Your task to perform on an android device: change the clock display to analog Image 0: 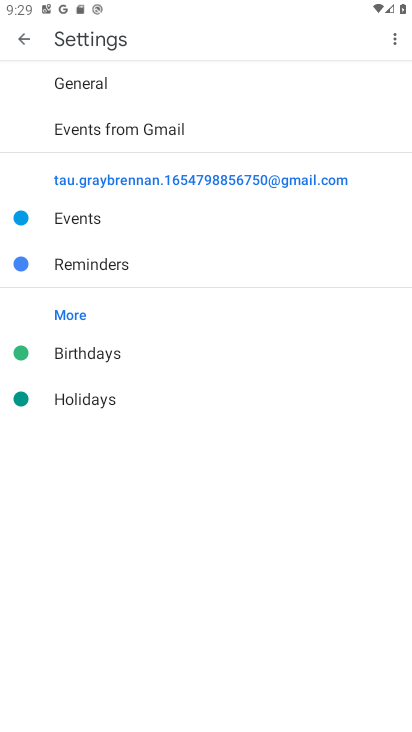
Step 0: drag from (293, 652) to (288, 161)
Your task to perform on an android device: change the clock display to analog Image 1: 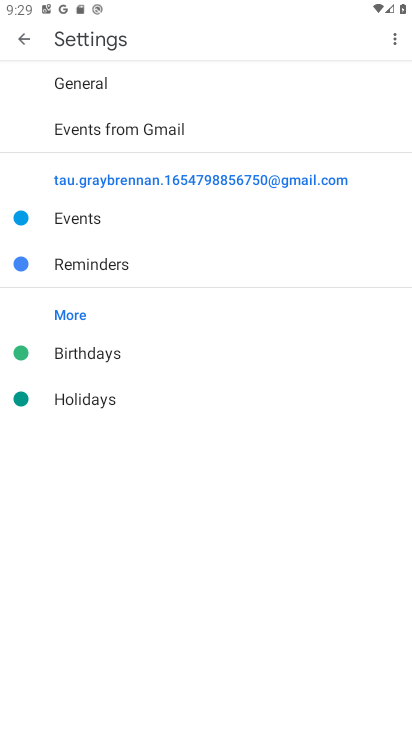
Step 1: click (30, 34)
Your task to perform on an android device: change the clock display to analog Image 2: 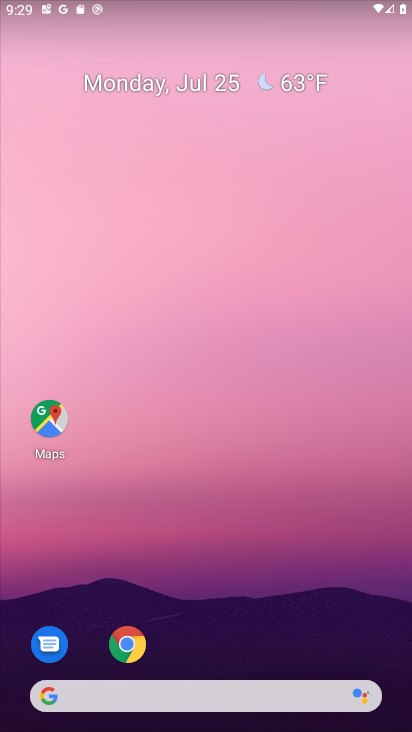
Step 2: drag from (248, 631) to (223, 149)
Your task to perform on an android device: change the clock display to analog Image 3: 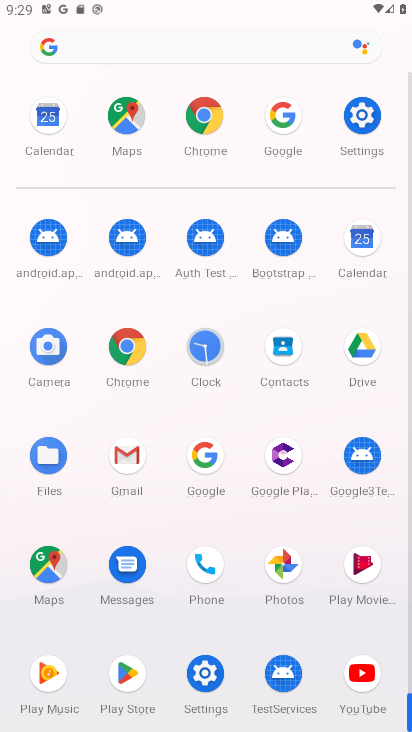
Step 3: click (201, 344)
Your task to perform on an android device: change the clock display to analog Image 4: 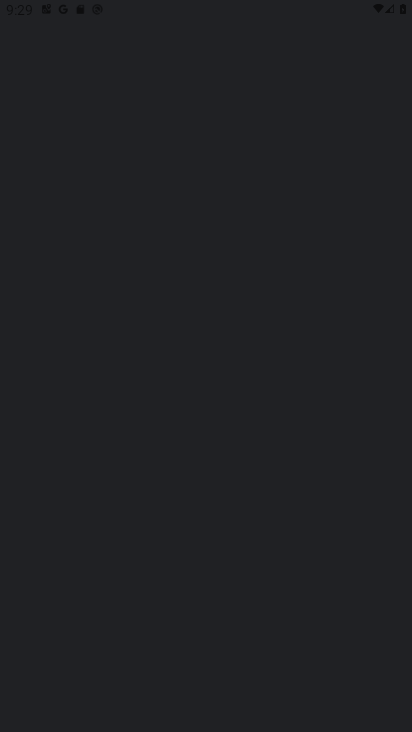
Step 4: click (204, 345)
Your task to perform on an android device: change the clock display to analog Image 5: 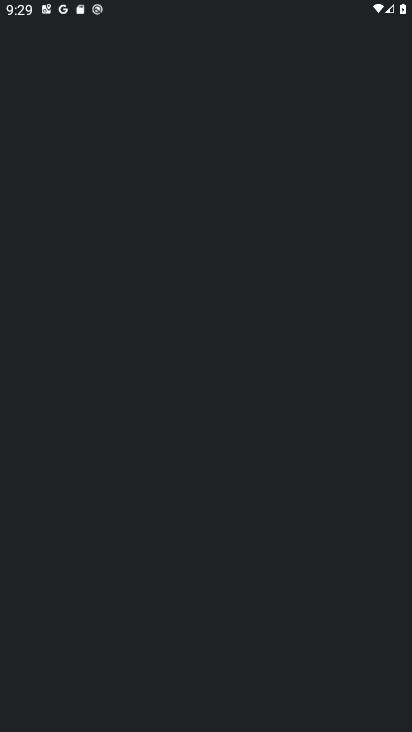
Step 5: click (215, 351)
Your task to perform on an android device: change the clock display to analog Image 6: 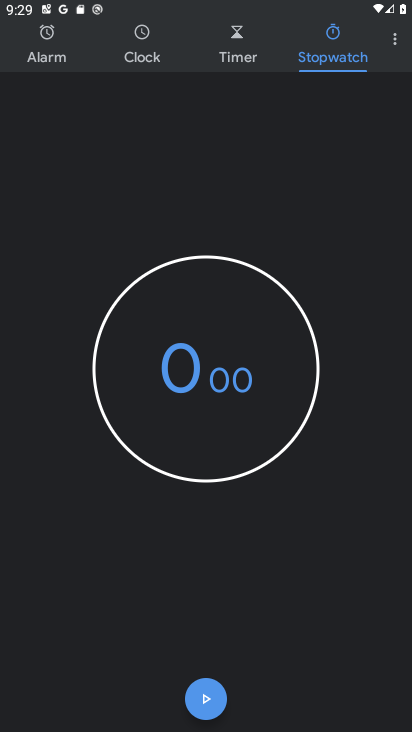
Step 6: click (392, 46)
Your task to perform on an android device: change the clock display to analog Image 7: 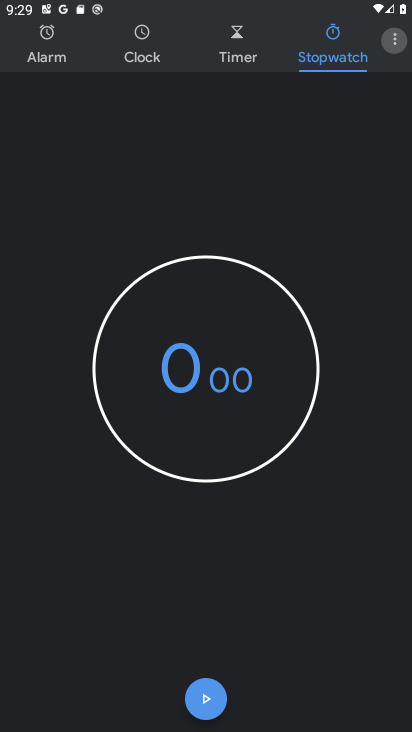
Step 7: click (393, 43)
Your task to perform on an android device: change the clock display to analog Image 8: 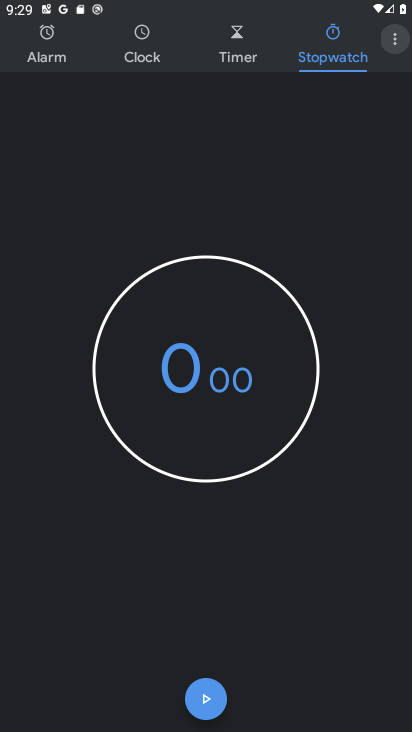
Step 8: click (394, 43)
Your task to perform on an android device: change the clock display to analog Image 9: 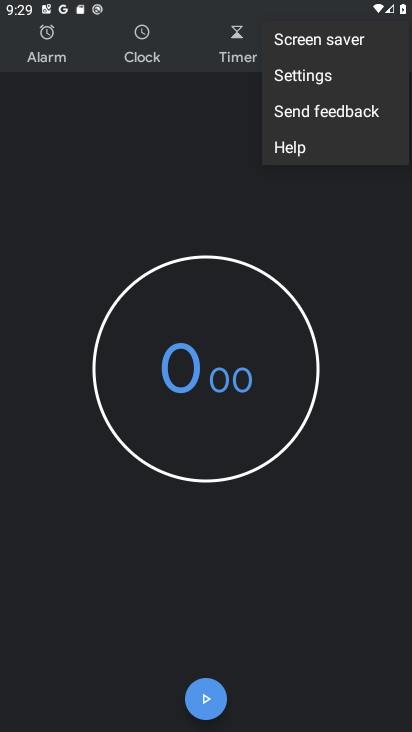
Step 9: click (394, 43)
Your task to perform on an android device: change the clock display to analog Image 10: 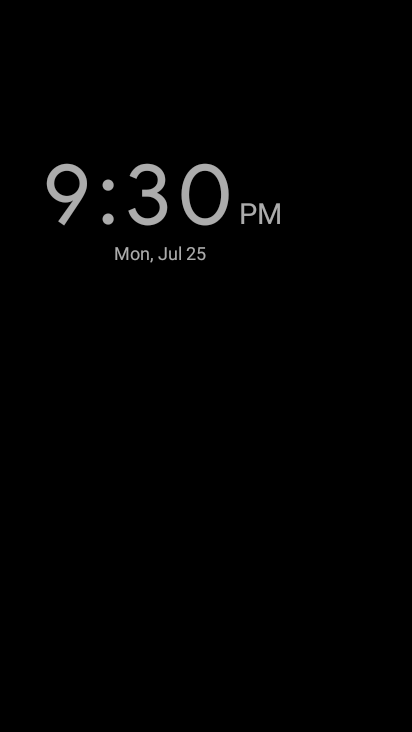
Step 10: press back button
Your task to perform on an android device: change the clock display to analog Image 11: 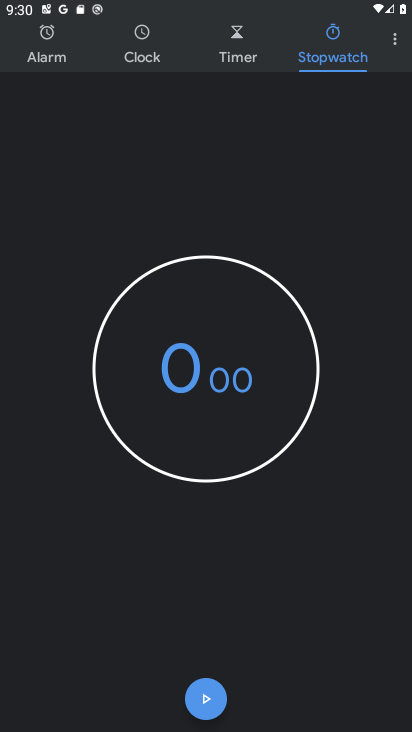
Step 11: click (391, 35)
Your task to perform on an android device: change the clock display to analog Image 12: 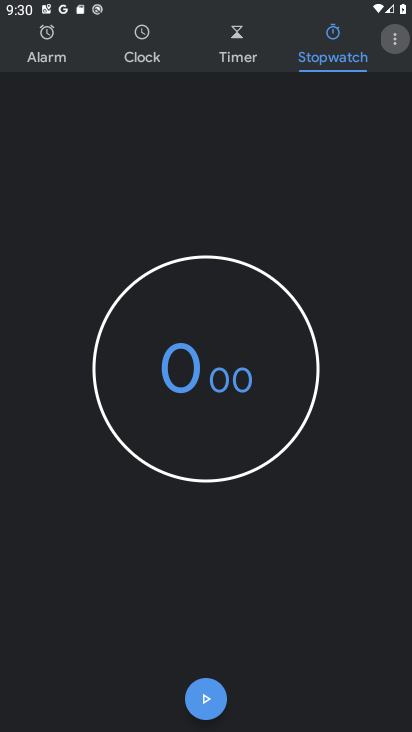
Step 12: click (392, 33)
Your task to perform on an android device: change the clock display to analog Image 13: 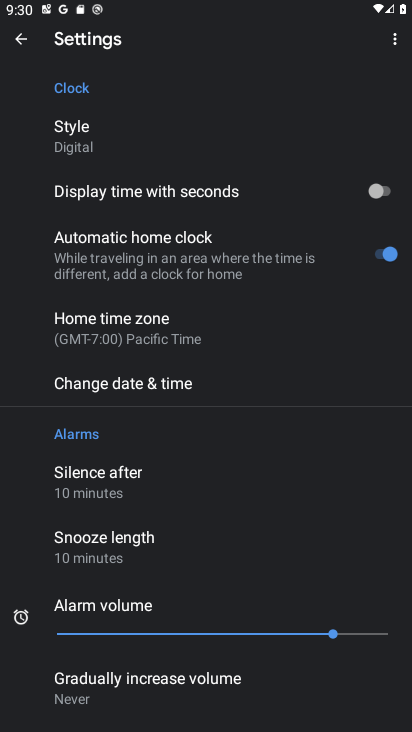
Step 13: task complete